Your task to perform on an android device: set the timer Image 0: 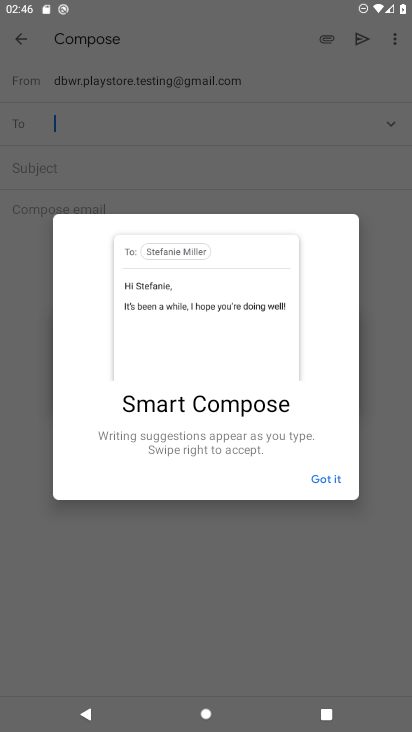
Step 0: press home button
Your task to perform on an android device: set the timer Image 1: 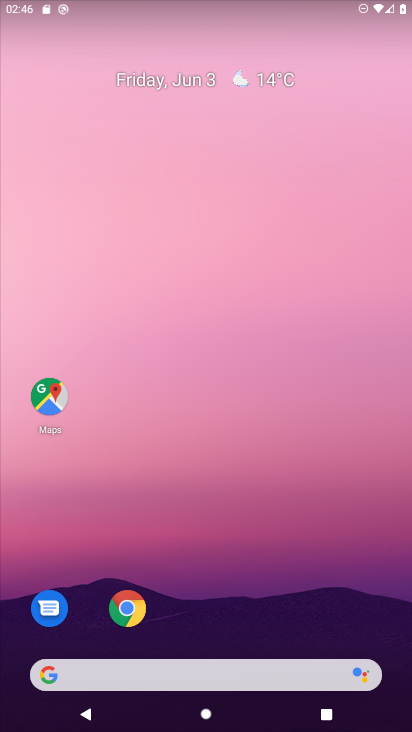
Step 1: drag from (283, 519) to (280, 157)
Your task to perform on an android device: set the timer Image 2: 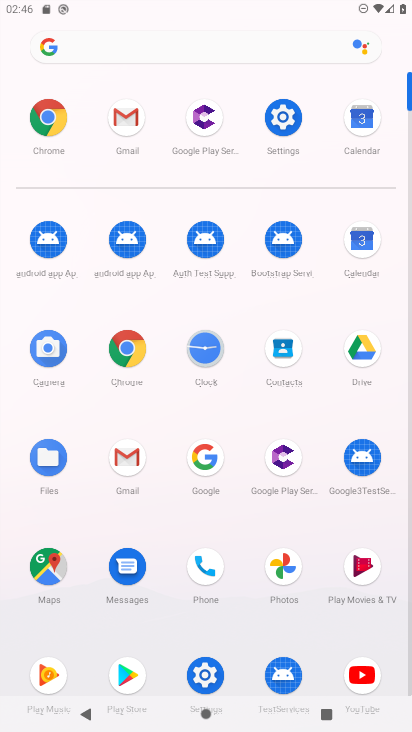
Step 2: click (205, 349)
Your task to perform on an android device: set the timer Image 3: 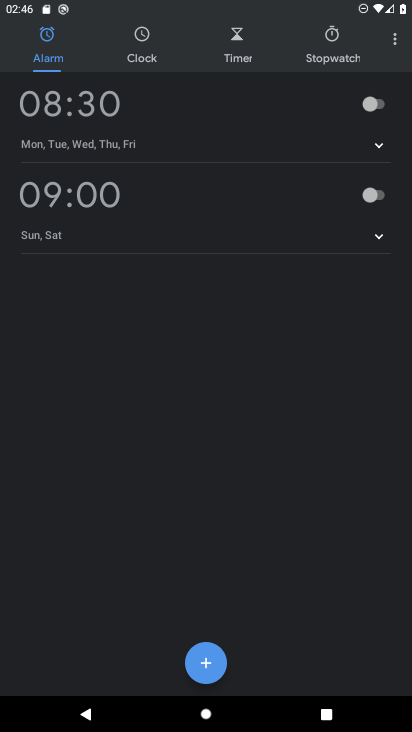
Step 3: click (244, 30)
Your task to perform on an android device: set the timer Image 4: 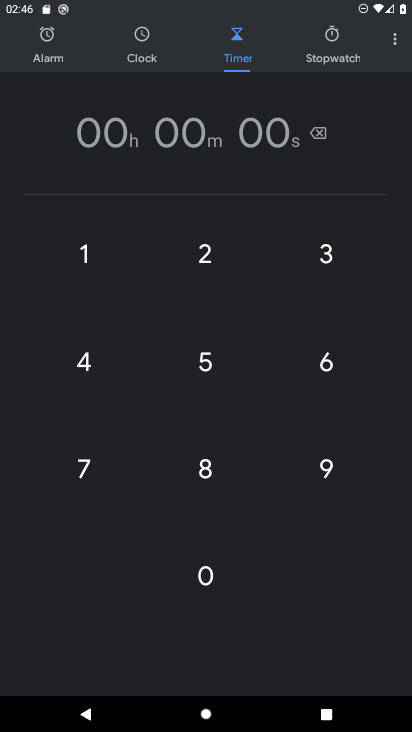
Step 4: click (211, 371)
Your task to perform on an android device: set the timer Image 5: 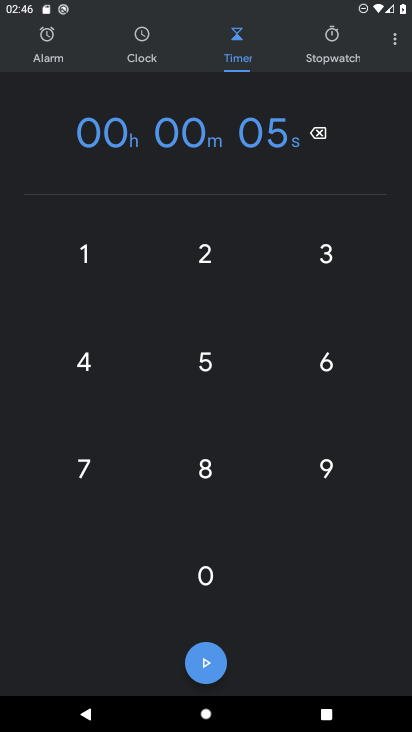
Step 5: task complete